Your task to perform on an android device: delete location history Image 0: 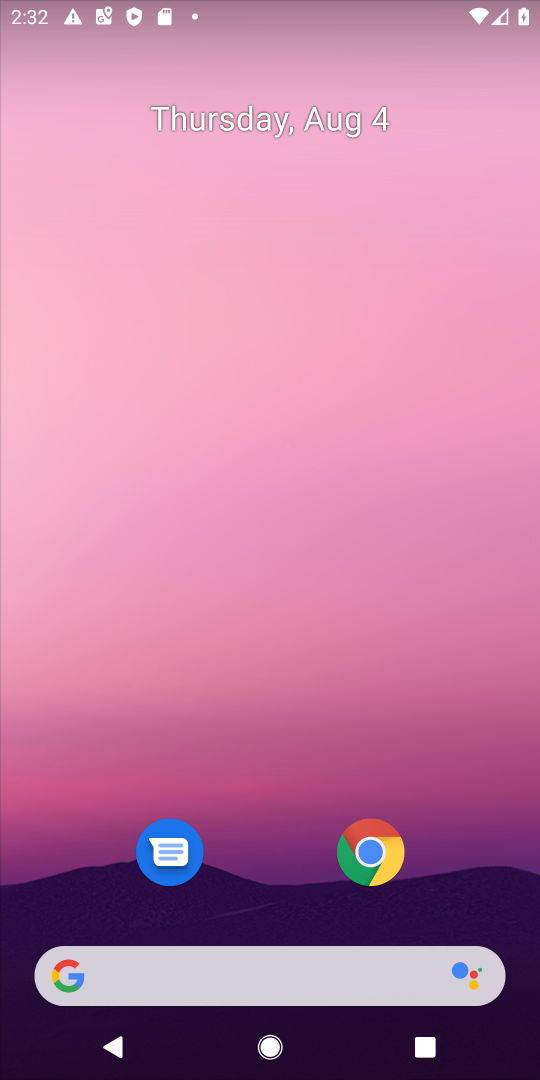
Step 0: drag from (190, 905) to (253, 9)
Your task to perform on an android device: delete location history Image 1: 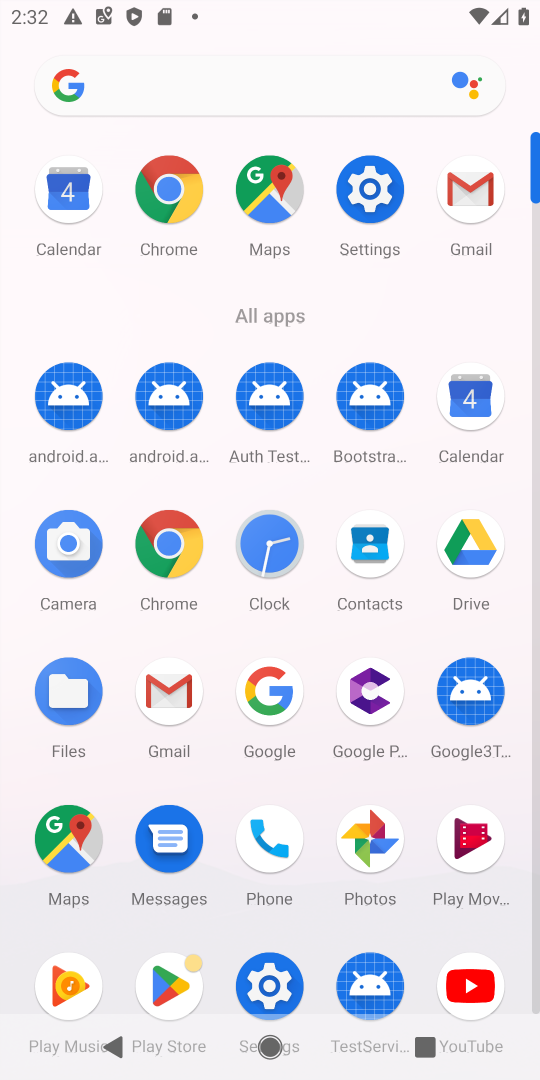
Step 1: click (376, 199)
Your task to perform on an android device: delete location history Image 2: 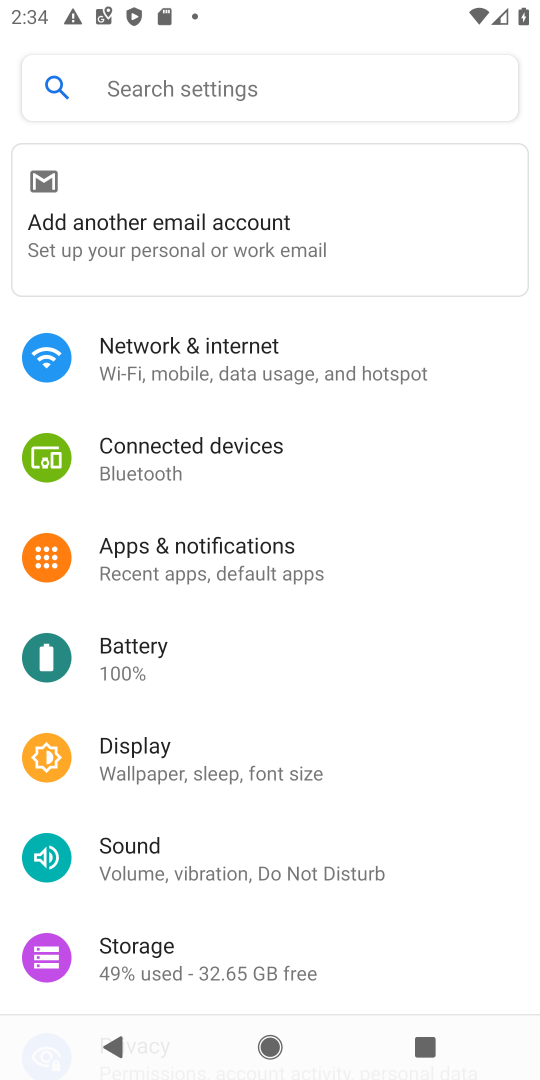
Step 2: press back button
Your task to perform on an android device: delete location history Image 3: 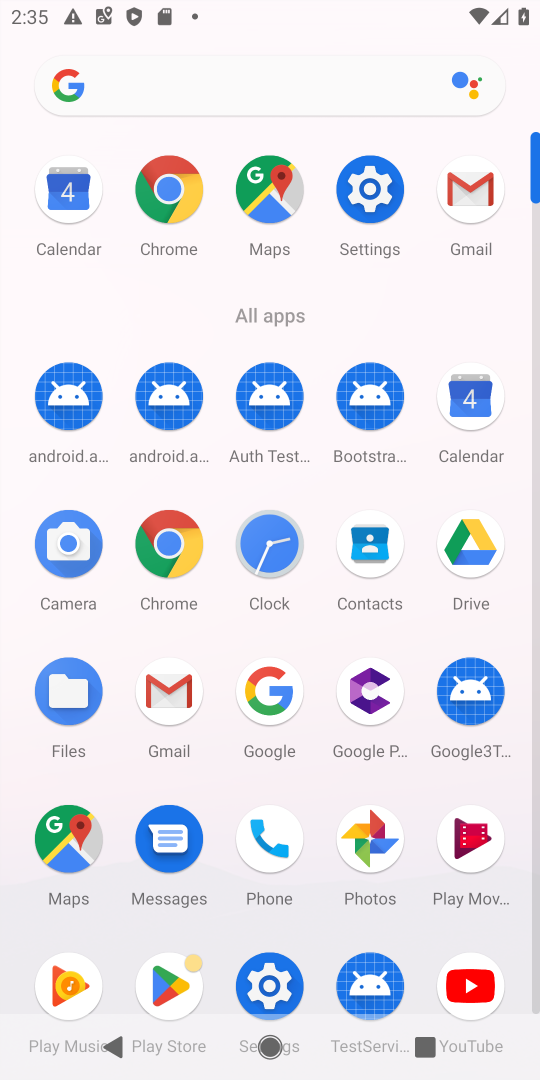
Step 3: click (366, 214)
Your task to perform on an android device: delete location history Image 4: 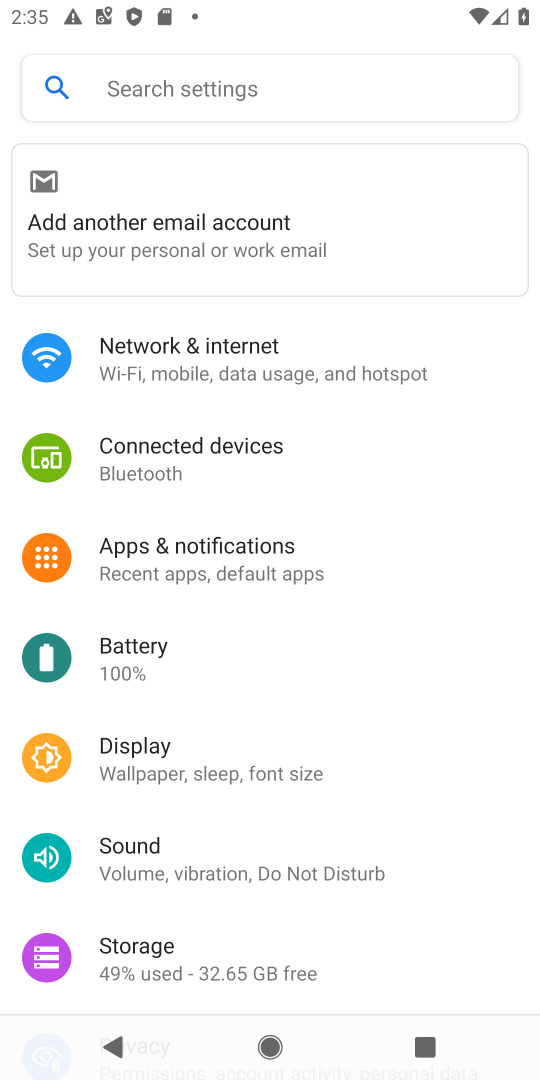
Step 4: drag from (195, 939) to (399, 67)
Your task to perform on an android device: delete location history Image 5: 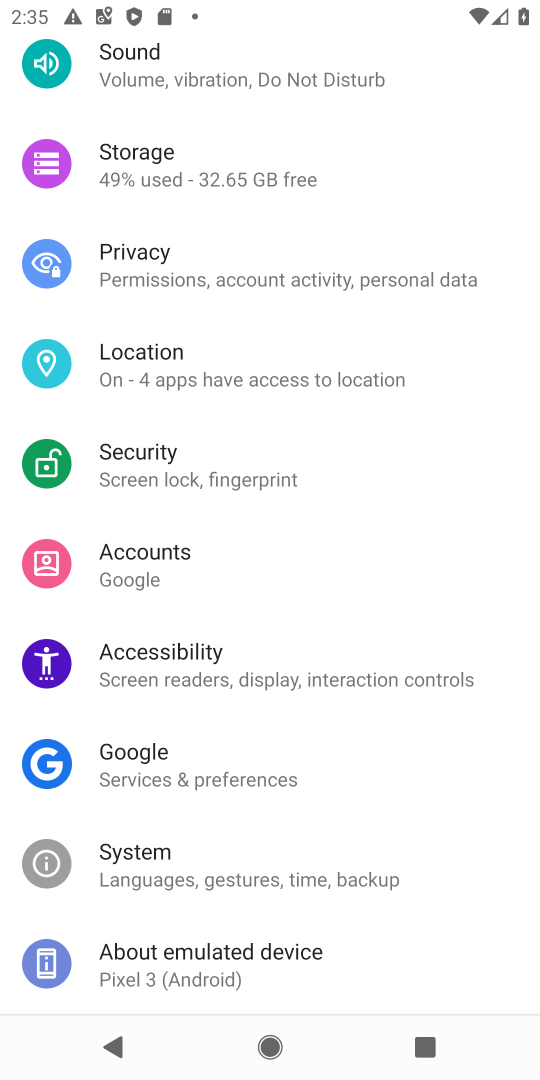
Step 5: click (185, 375)
Your task to perform on an android device: delete location history Image 6: 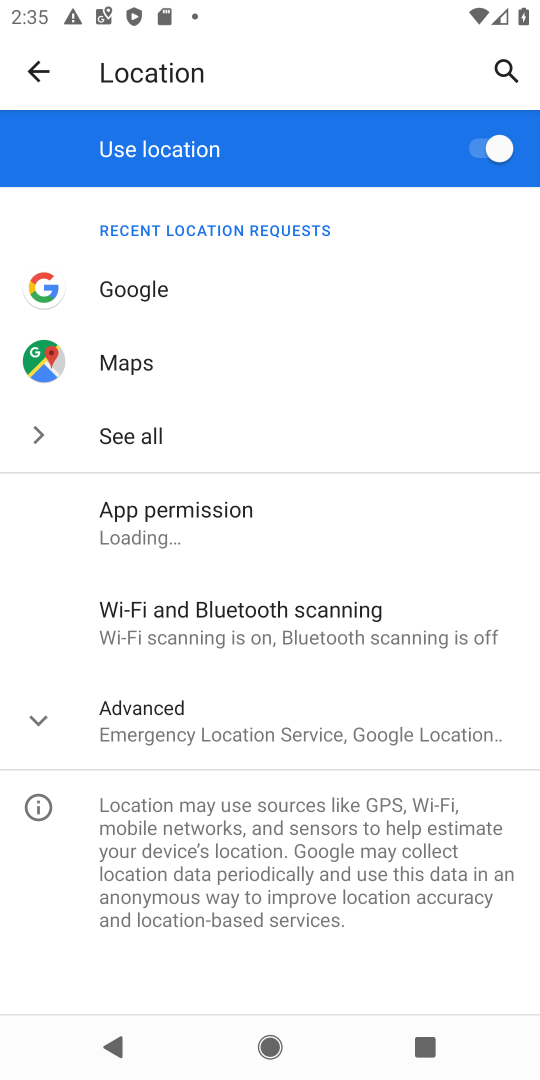
Step 6: click (227, 737)
Your task to perform on an android device: delete location history Image 7: 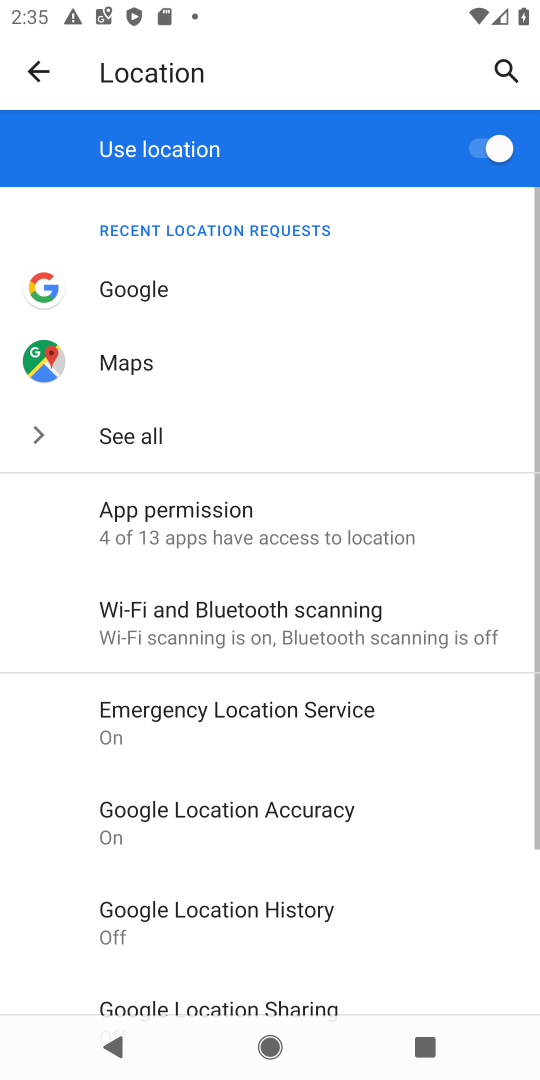
Step 7: click (165, 924)
Your task to perform on an android device: delete location history Image 8: 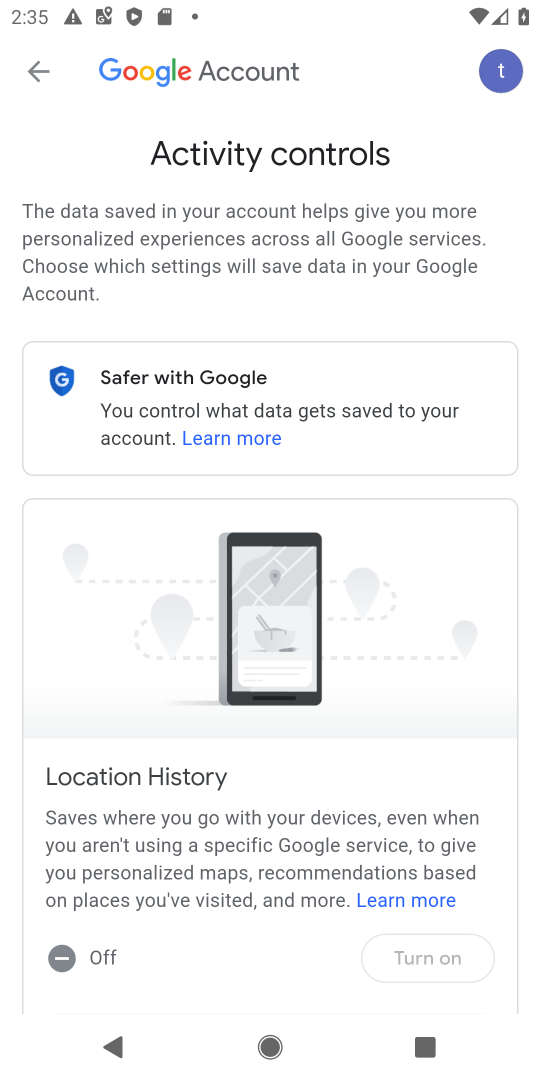
Step 8: press back button
Your task to perform on an android device: delete location history Image 9: 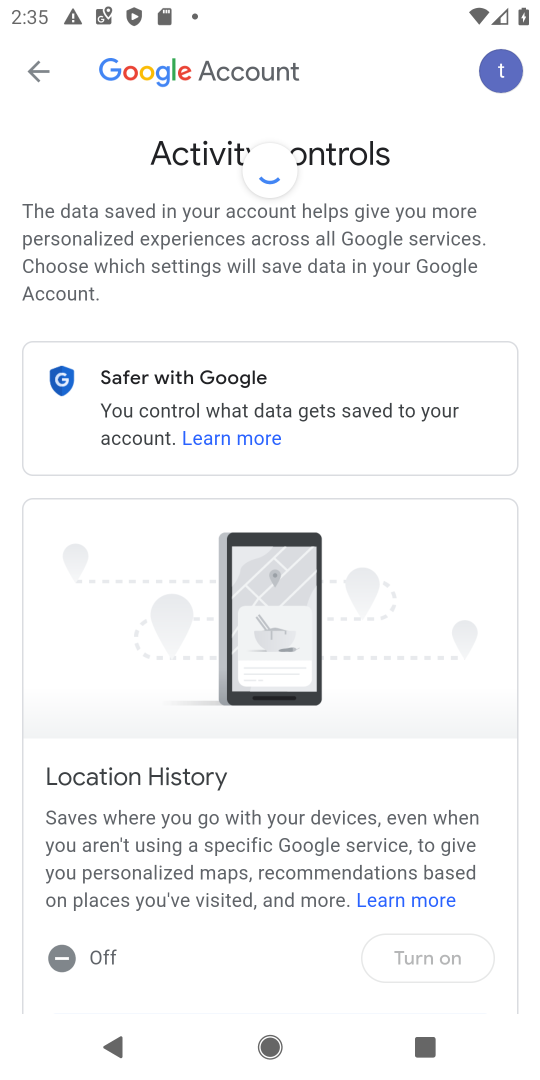
Step 9: press back button
Your task to perform on an android device: delete location history Image 10: 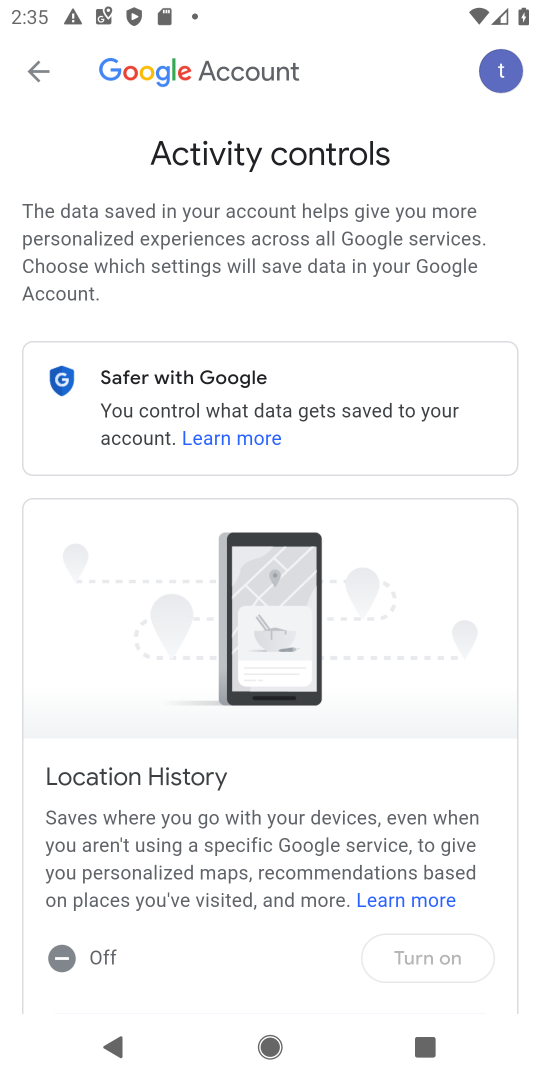
Step 10: press back button
Your task to perform on an android device: delete location history Image 11: 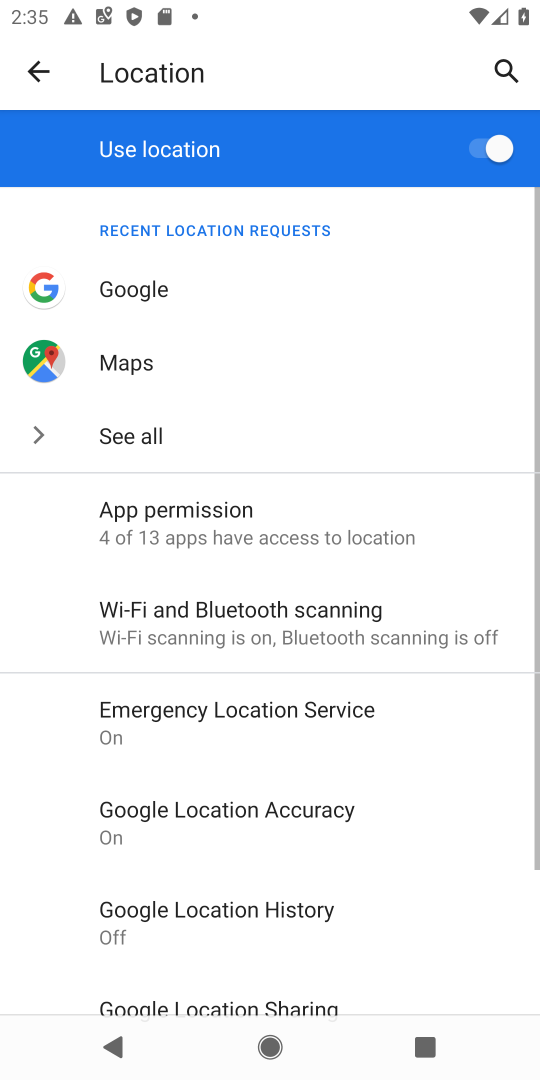
Step 11: press home button
Your task to perform on an android device: delete location history Image 12: 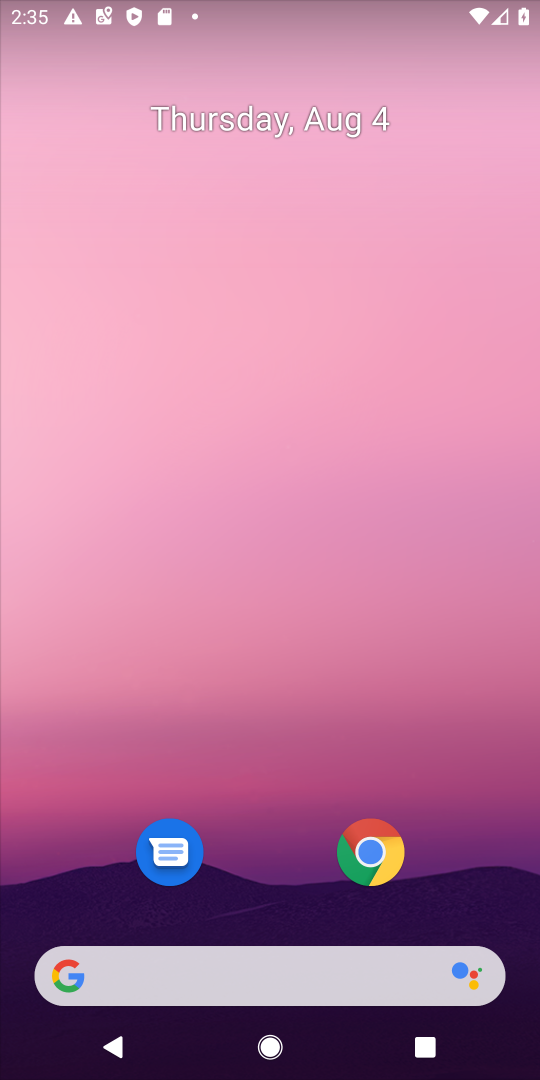
Step 12: drag from (265, 849) to (323, 38)
Your task to perform on an android device: delete location history Image 13: 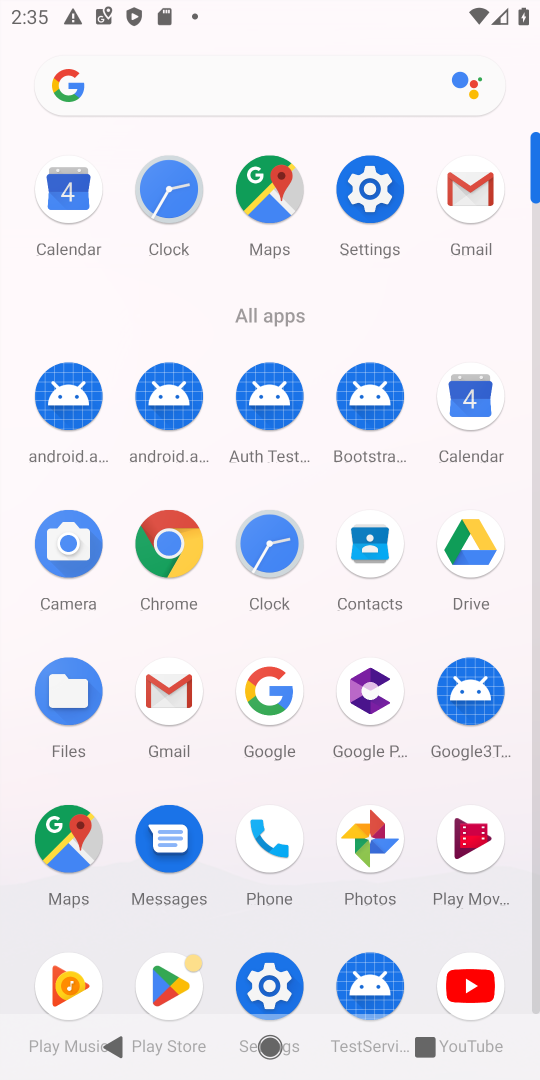
Step 13: click (269, 193)
Your task to perform on an android device: delete location history Image 14: 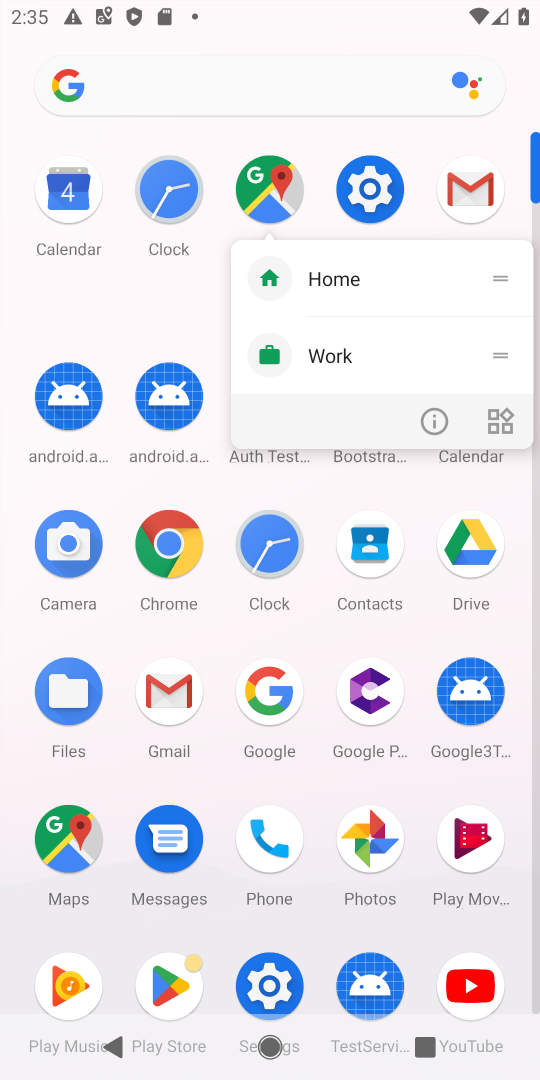
Step 14: click (259, 191)
Your task to perform on an android device: delete location history Image 15: 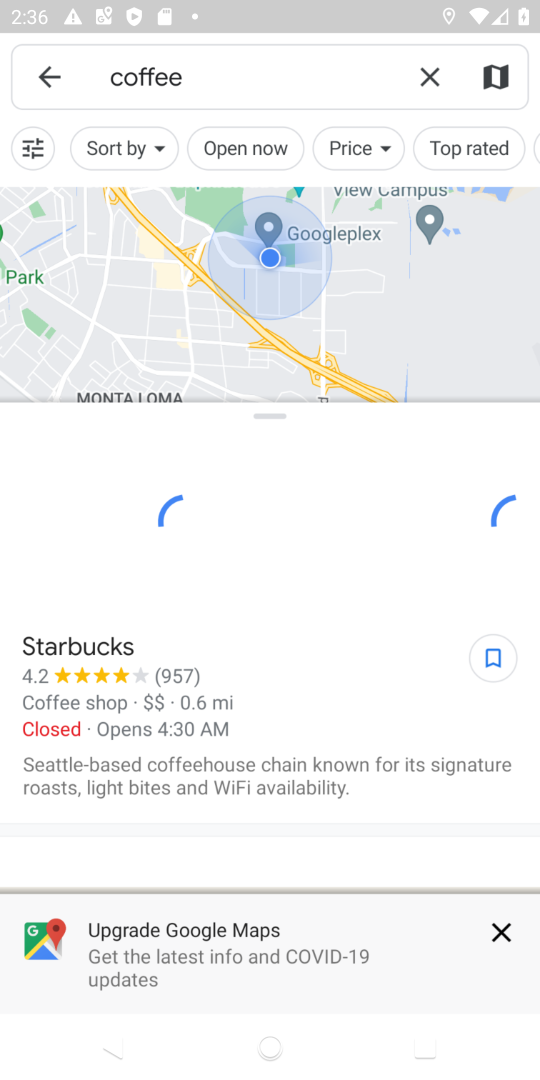
Step 15: click (68, 71)
Your task to perform on an android device: delete location history Image 16: 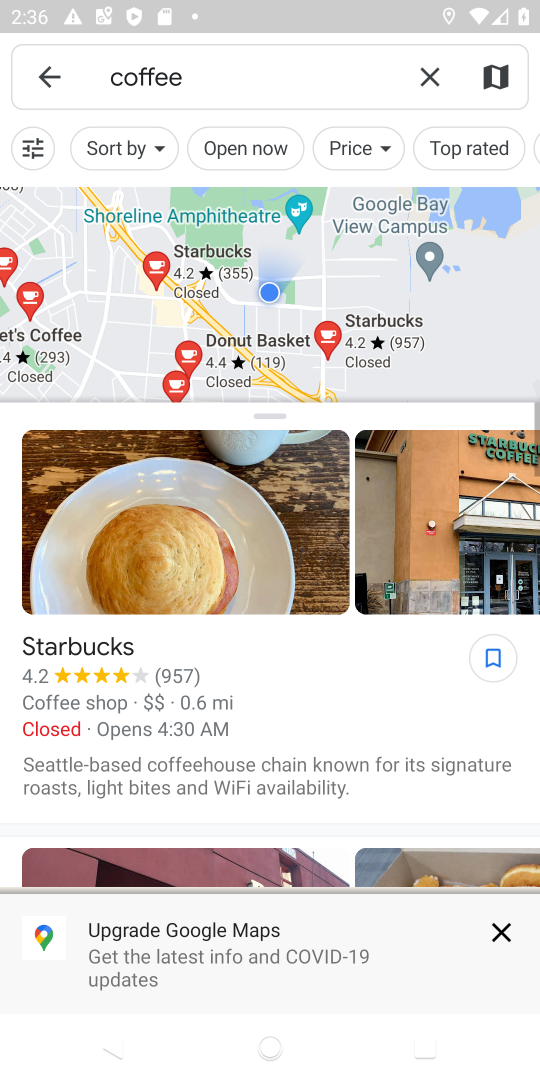
Step 16: click (64, 72)
Your task to perform on an android device: delete location history Image 17: 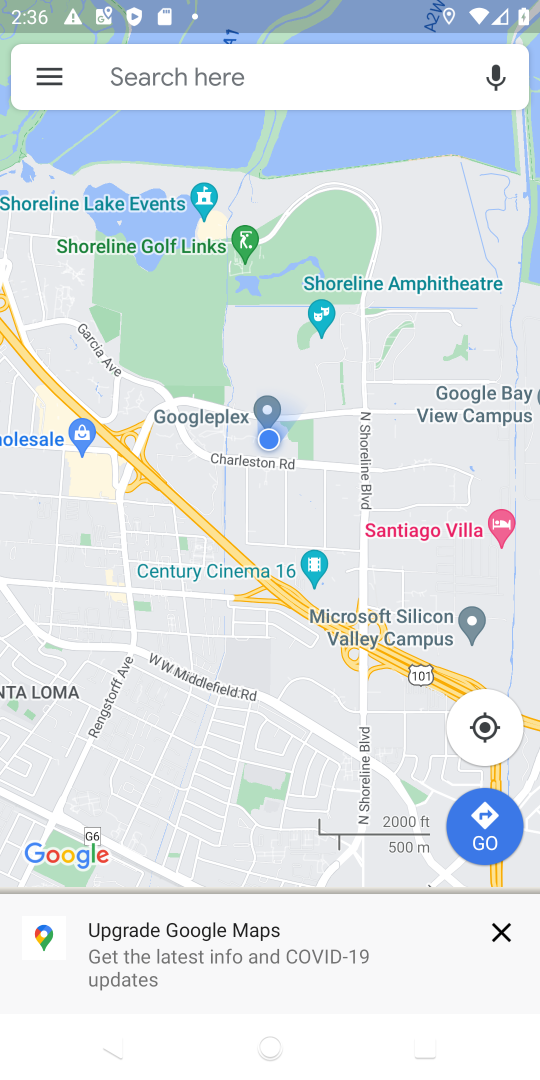
Step 17: click (30, 75)
Your task to perform on an android device: delete location history Image 18: 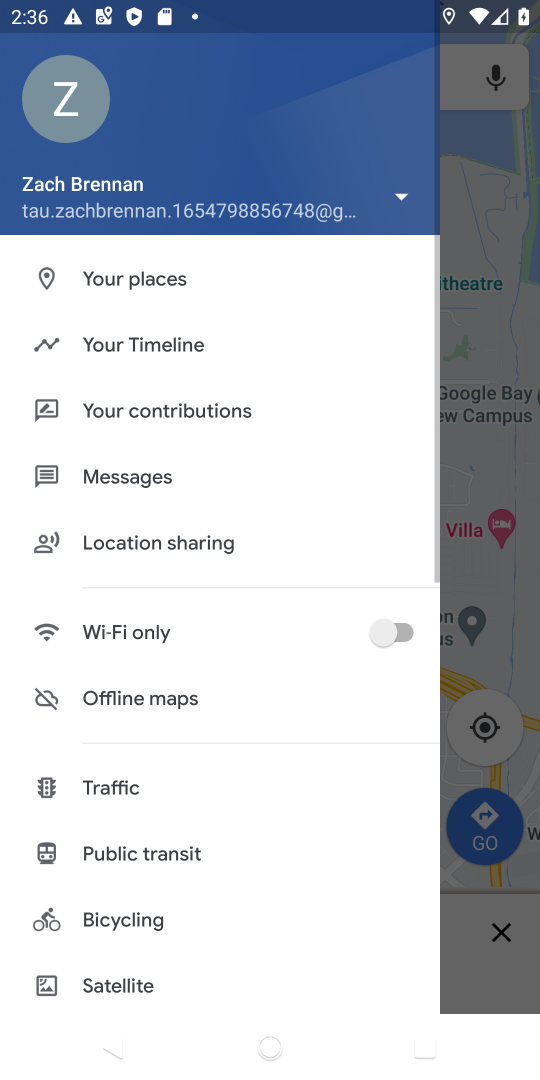
Step 18: drag from (213, 961) to (281, 143)
Your task to perform on an android device: delete location history Image 19: 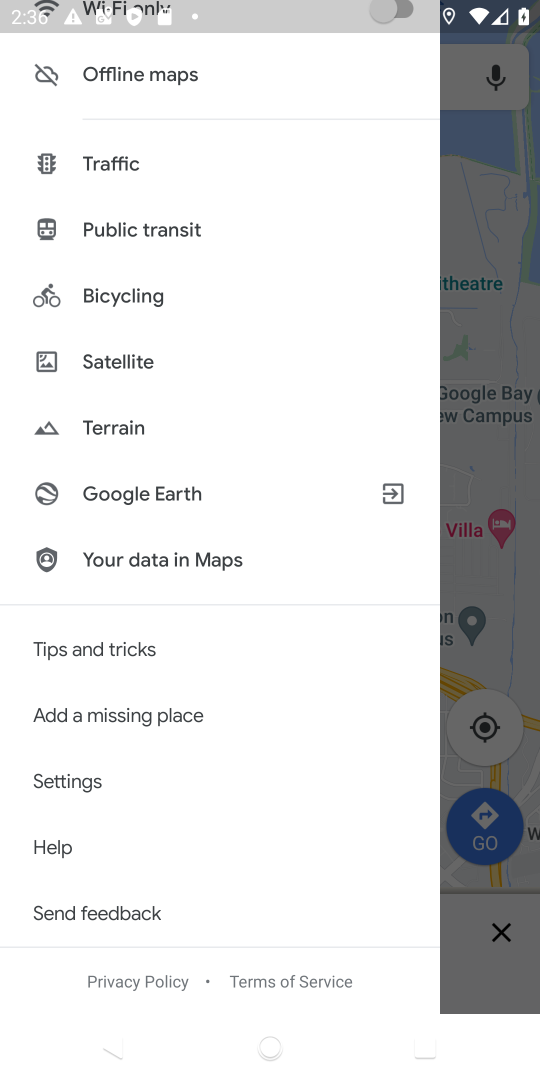
Step 19: click (71, 782)
Your task to perform on an android device: delete location history Image 20: 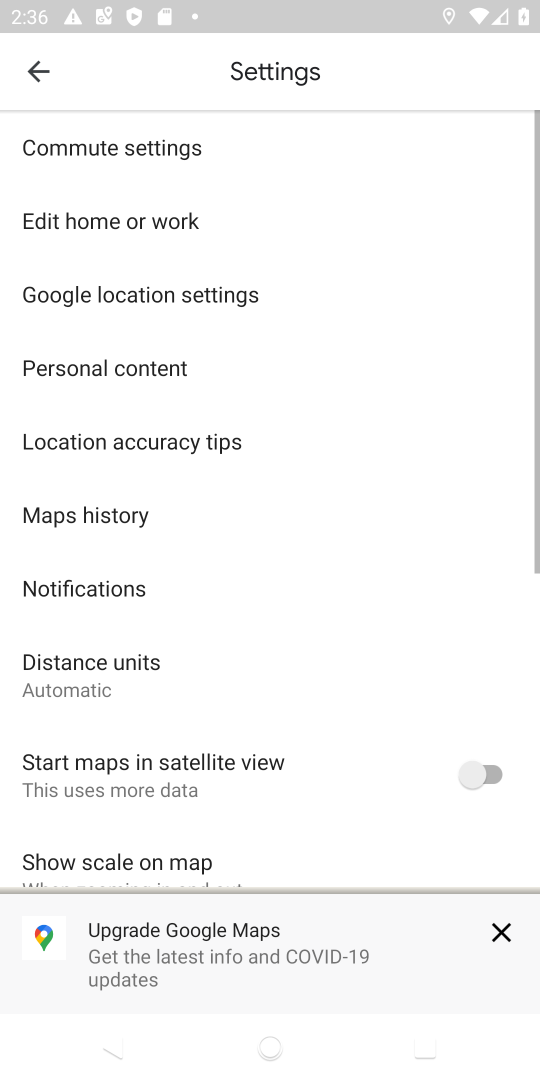
Step 20: click (48, 74)
Your task to perform on an android device: delete location history Image 21: 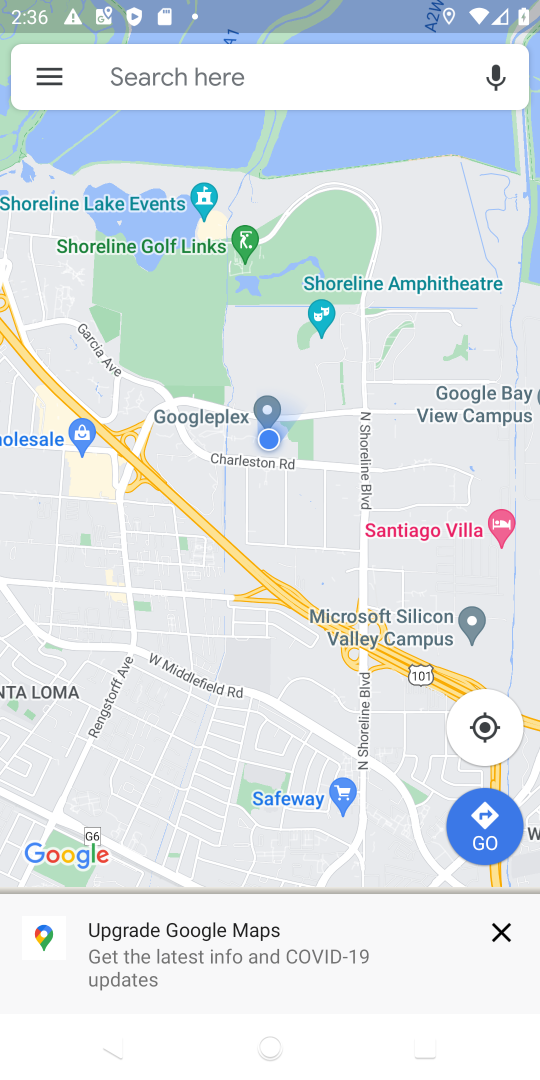
Step 21: click (49, 69)
Your task to perform on an android device: delete location history Image 22: 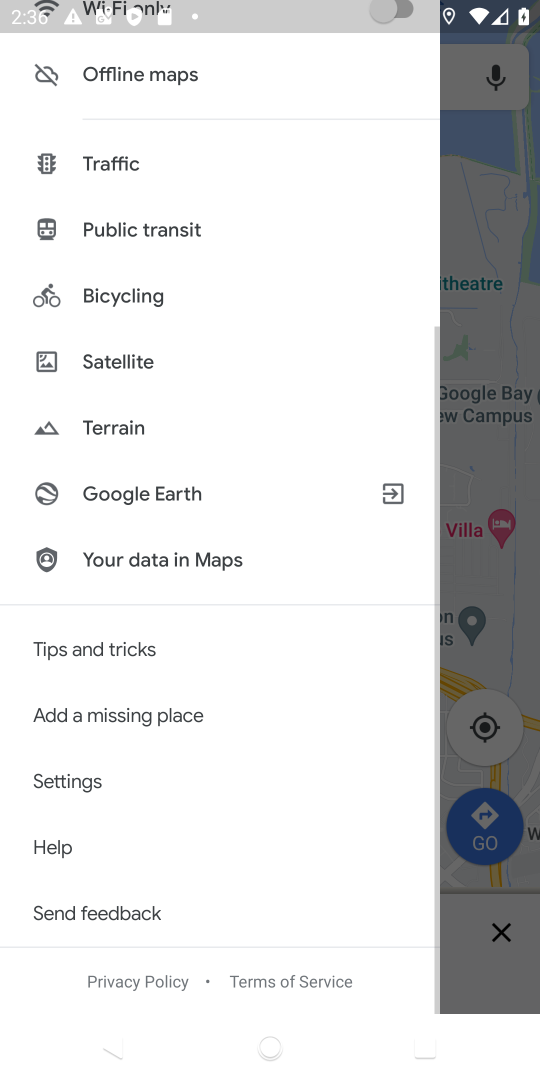
Step 22: drag from (228, 358) to (161, 1006)
Your task to perform on an android device: delete location history Image 23: 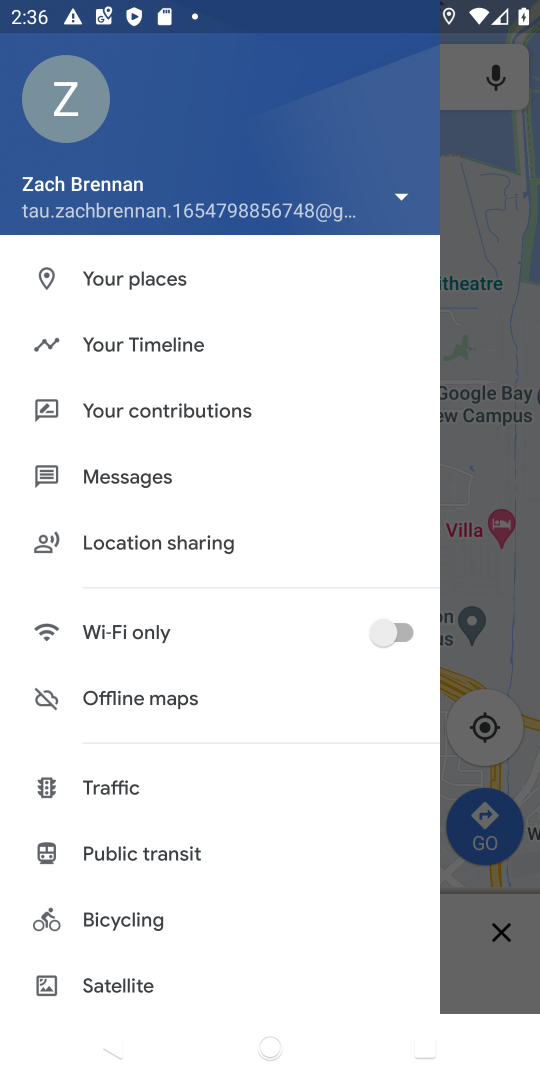
Step 23: click (127, 347)
Your task to perform on an android device: delete location history Image 24: 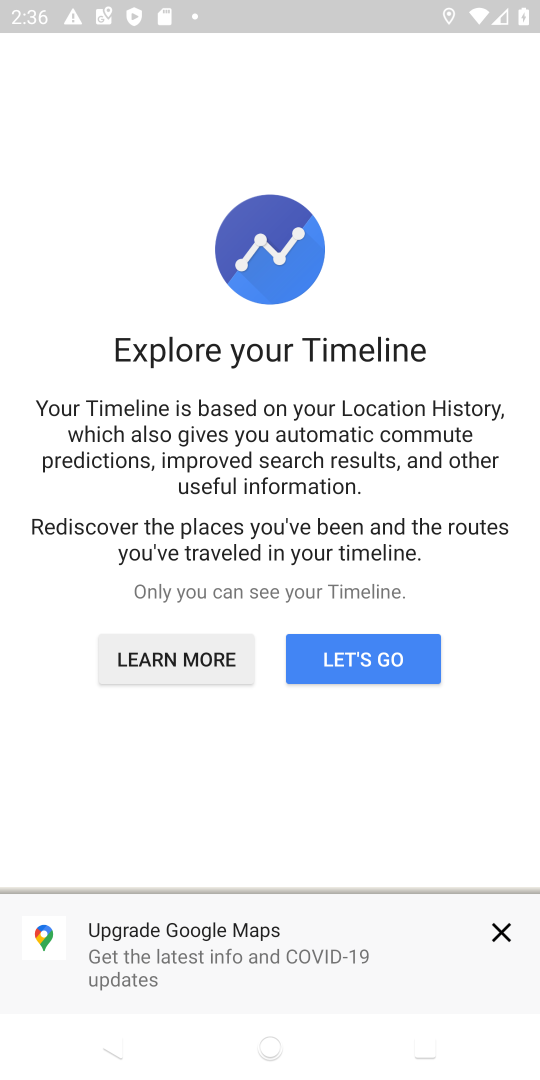
Step 24: click (493, 926)
Your task to perform on an android device: delete location history Image 25: 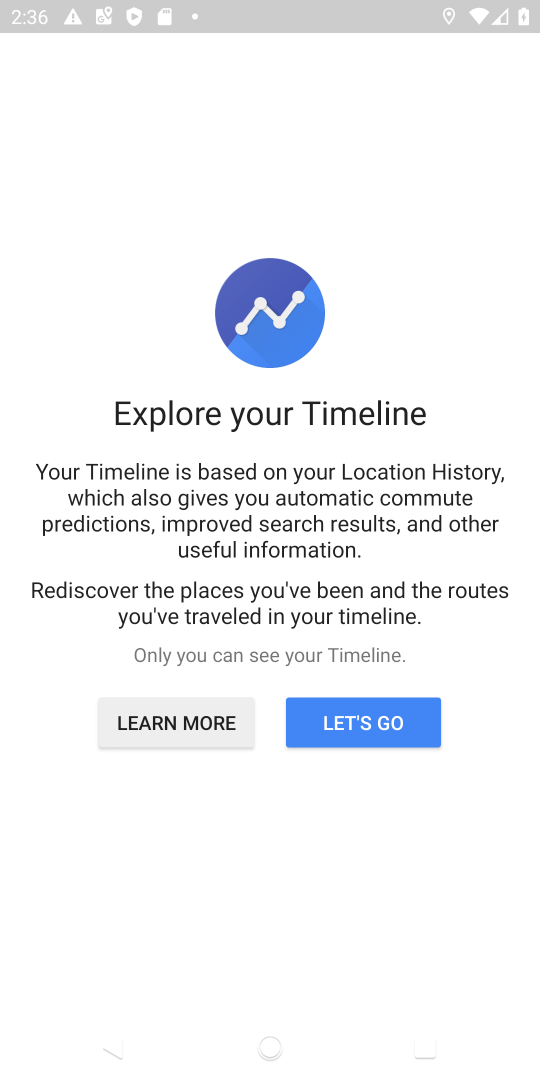
Step 25: click (364, 704)
Your task to perform on an android device: delete location history Image 26: 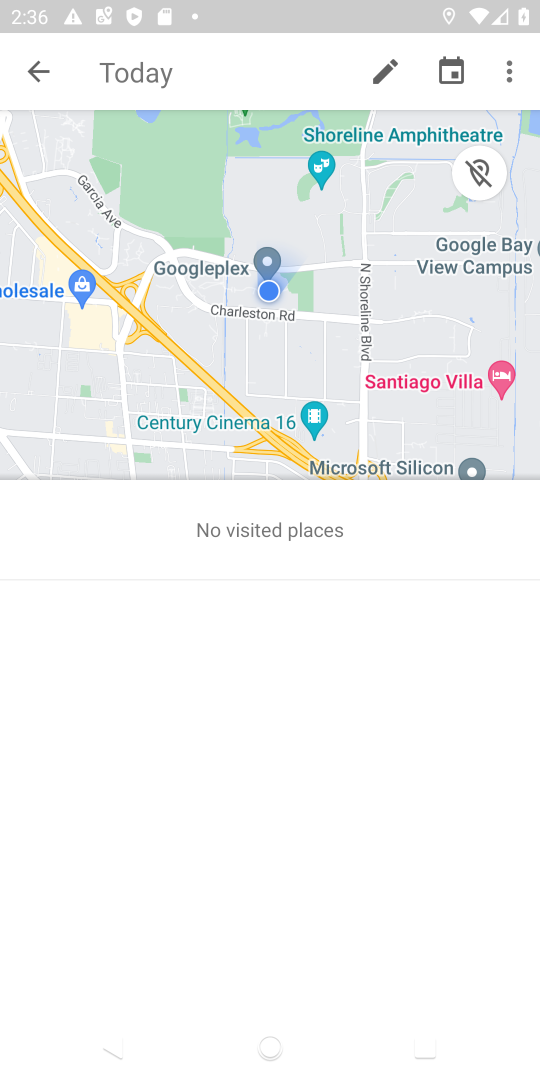
Step 26: click (510, 79)
Your task to perform on an android device: delete location history Image 27: 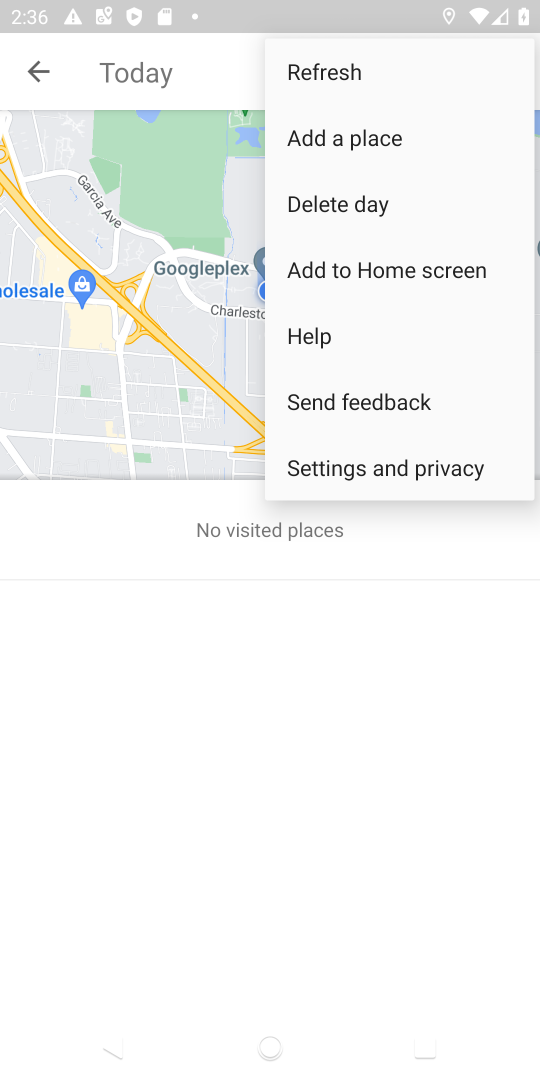
Step 27: click (351, 467)
Your task to perform on an android device: delete location history Image 28: 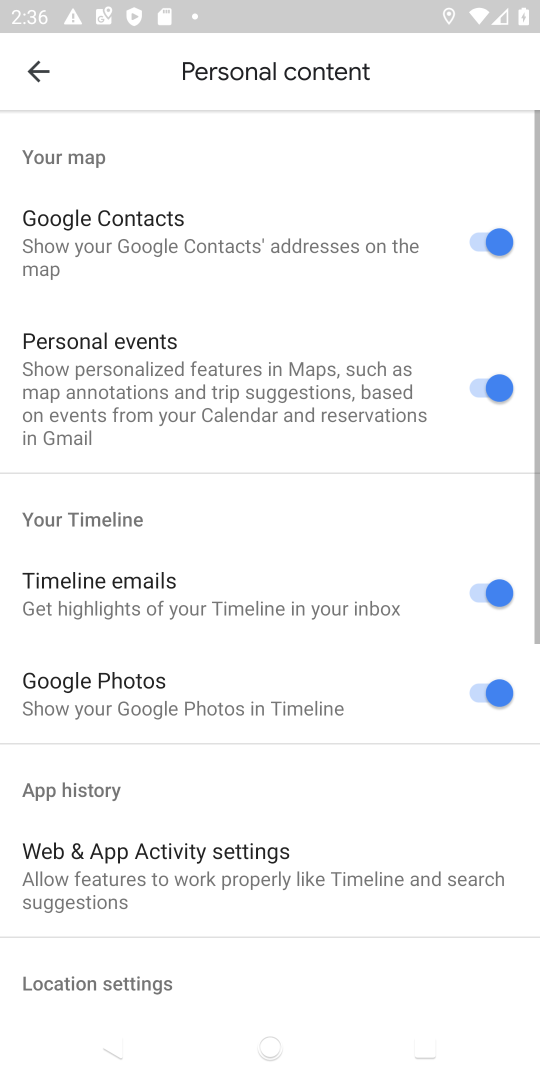
Step 28: drag from (210, 915) to (369, 3)
Your task to perform on an android device: delete location history Image 29: 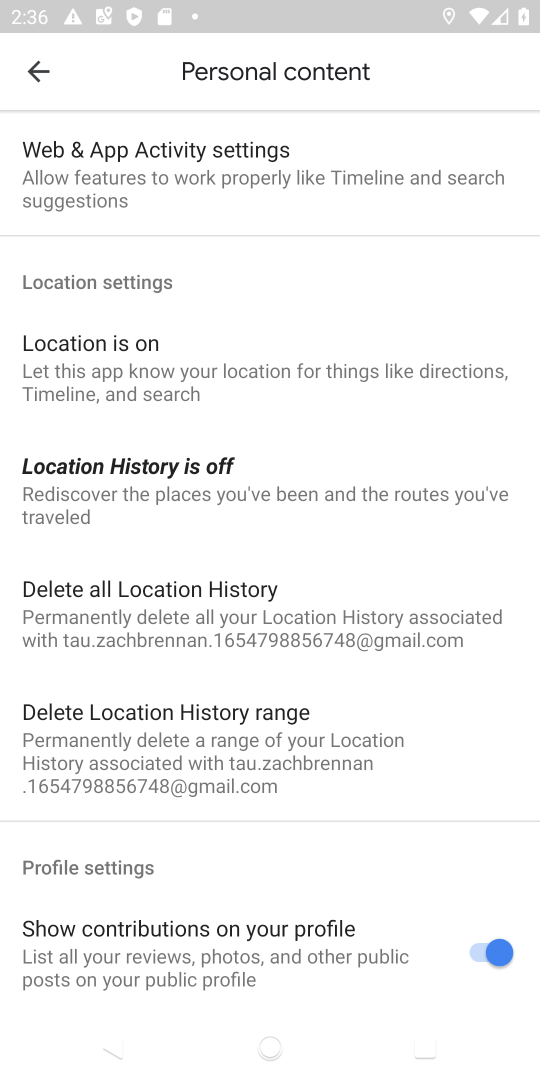
Step 29: click (227, 615)
Your task to perform on an android device: delete location history Image 30: 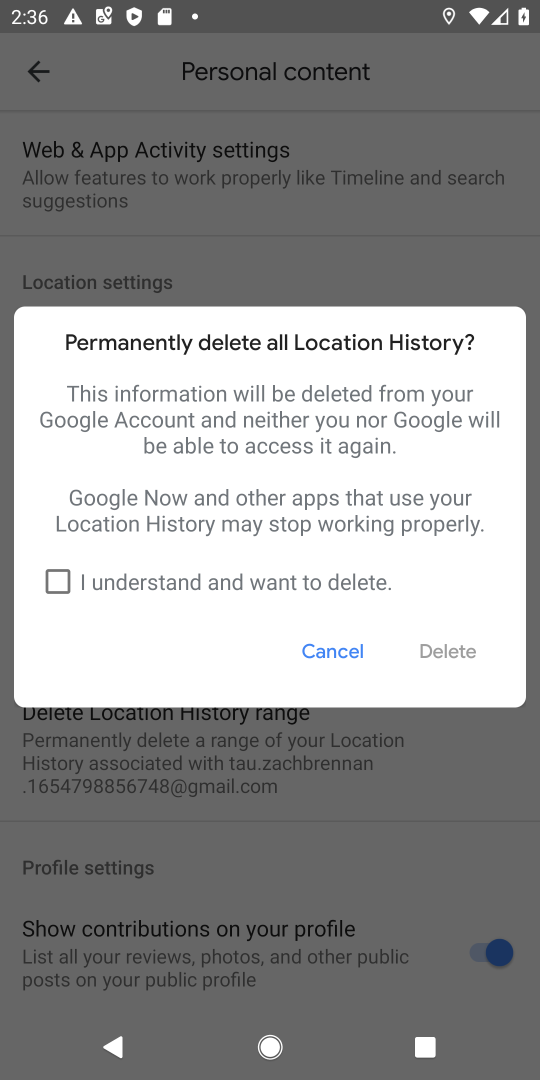
Step 30: click (107, 586)
Your task to perform on an android device: delete location history Image 31: 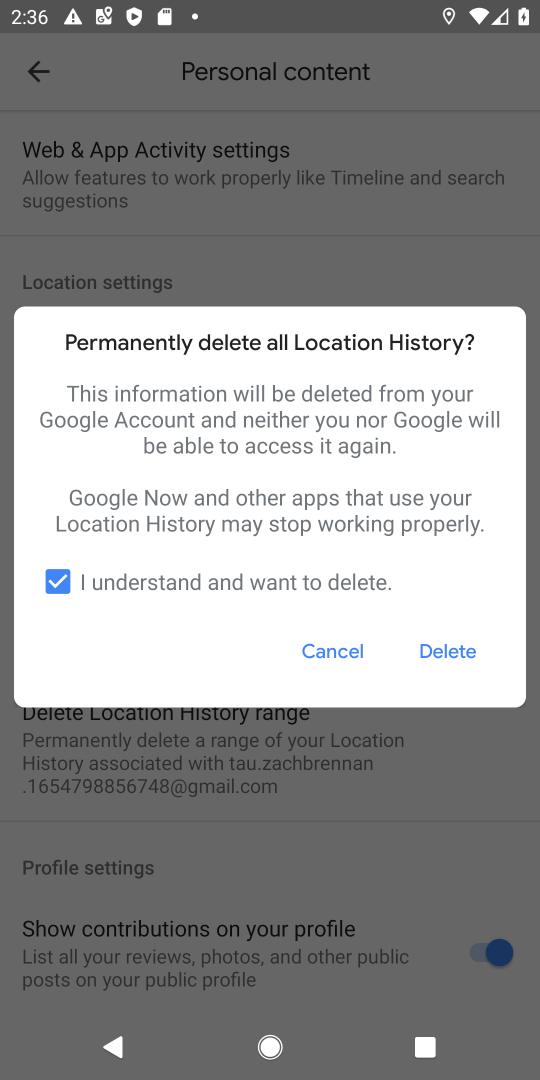
Step 31: click (469, 653)
Your task to perform on an android device: delete location history Image 32: 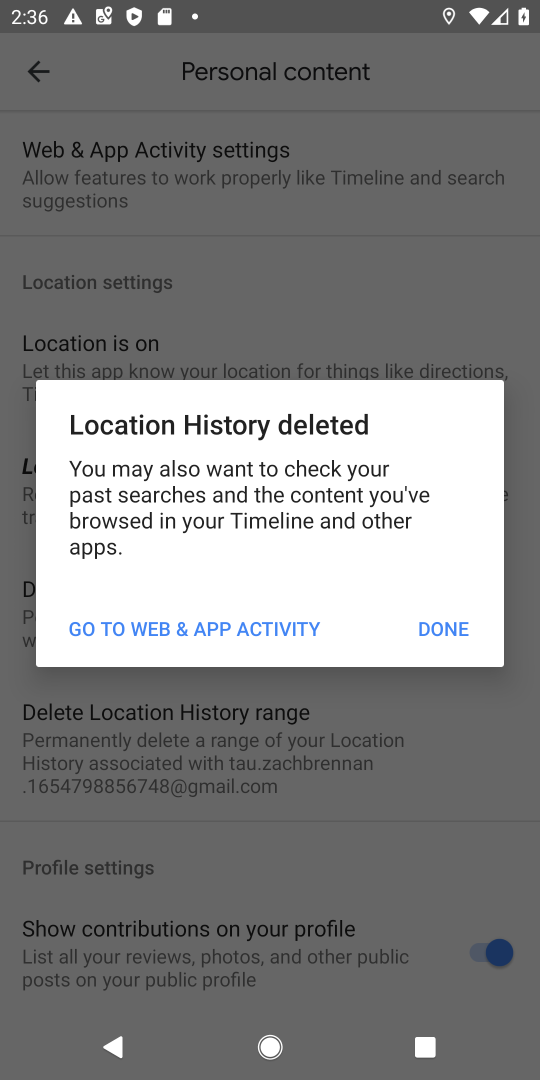
Step 32: click (415, 629)
Your task to perform on an android device: delete location history Image 33: 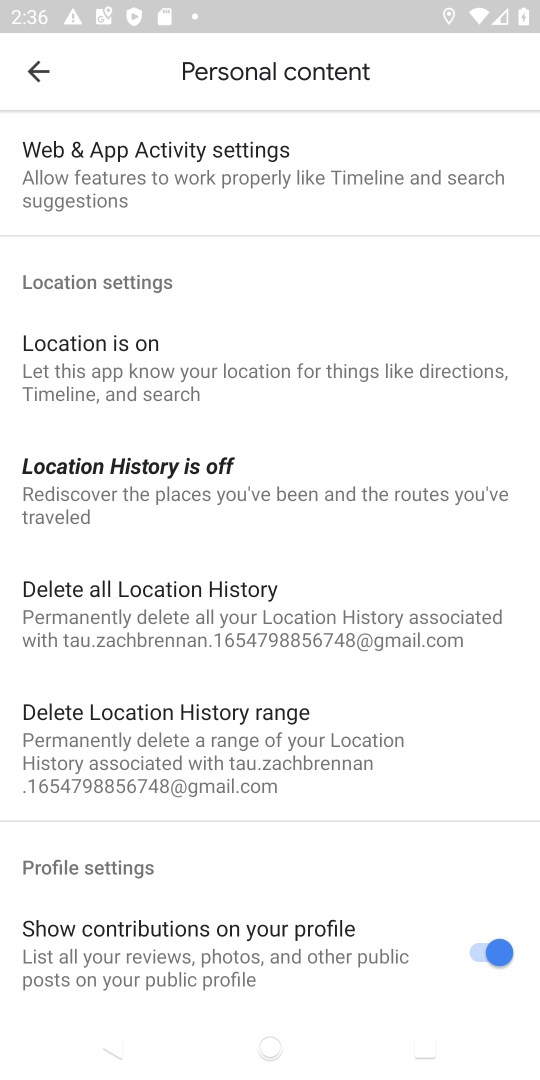
Step 33: task complete